Your task to perform on an android device: turn on notifications settings in the gmail app Image 0: 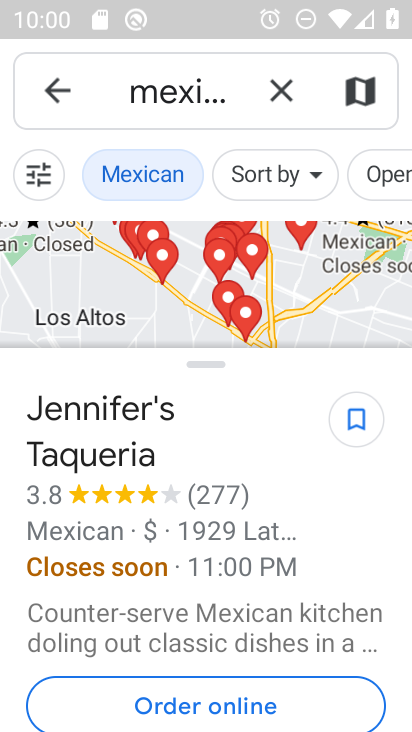
Step 0: press home button
Your task to perform on an android device: turn on notifications settings in the gmail app Image 1: 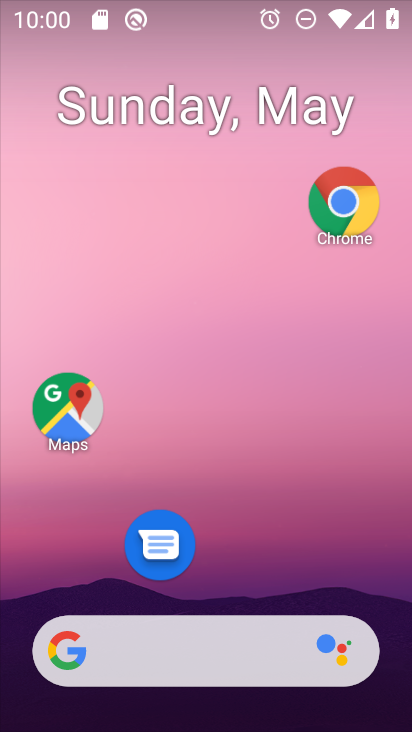
Step 1: drag from (251, 589) to (293, 39)
Your task to perform on an android device: turn on notifications settings in the gmail app Image 2: 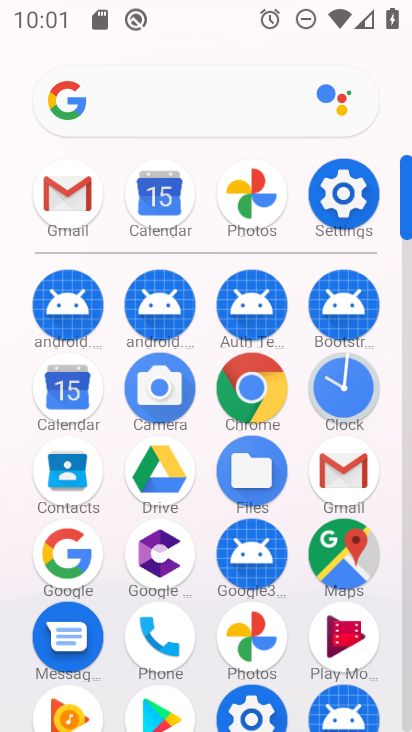
Step 2: click (335, 456)
Your task to perform on an android device: turn on notifications settings in the gmail app Image 3: 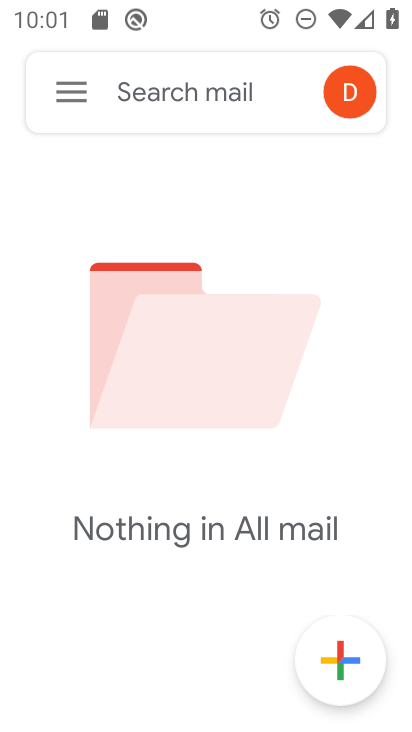
Step 3: click (56, 87)
Your task to perform on an android device: turn on notifications settings in the gmail app Image 4: 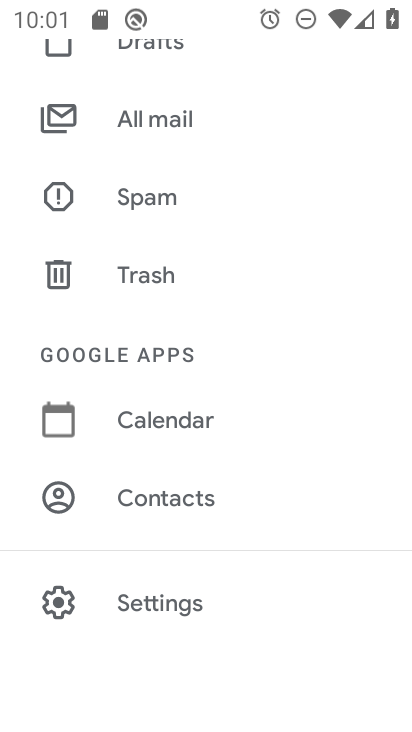
Step 4: click (116, 597)
Your task to perform on an android device: turn on notifications settings in the gmail app Image 5: 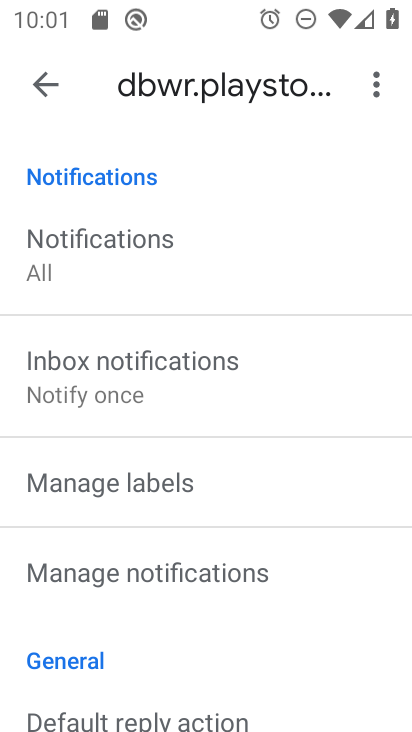
Step 5: click (110, 565)
Your task to perform on an android device: turn on notifications settings in the gmail app Image 6: 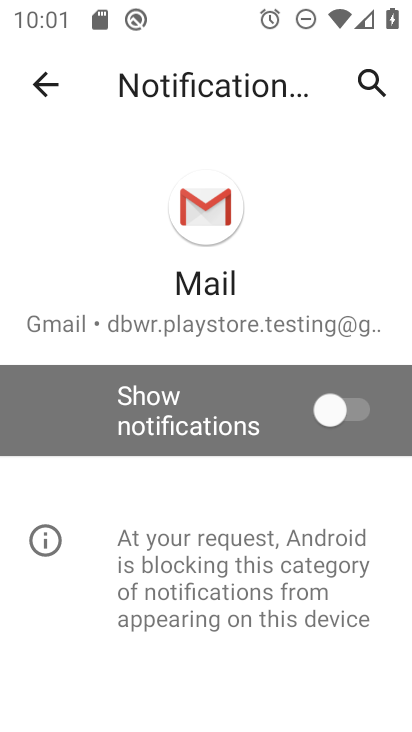
Step 6: click (339, 401)
Your task to perform on an android device: turn on notifications settings in the gmail app Image 7: 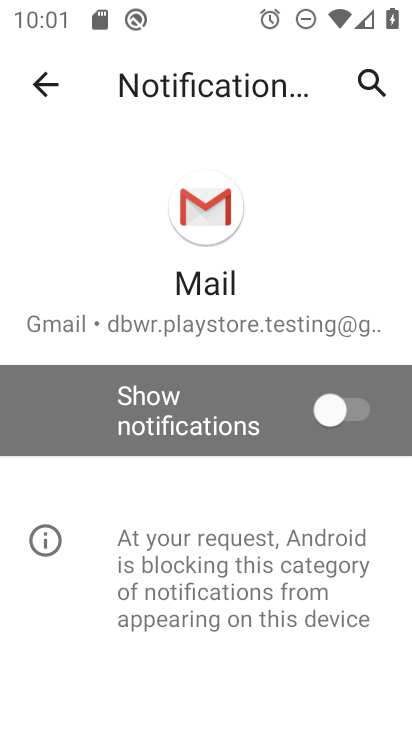
Step 7: click (339, 401)
Your task to perform on an android device: turn on notifications settings in the gmail app Image 8: 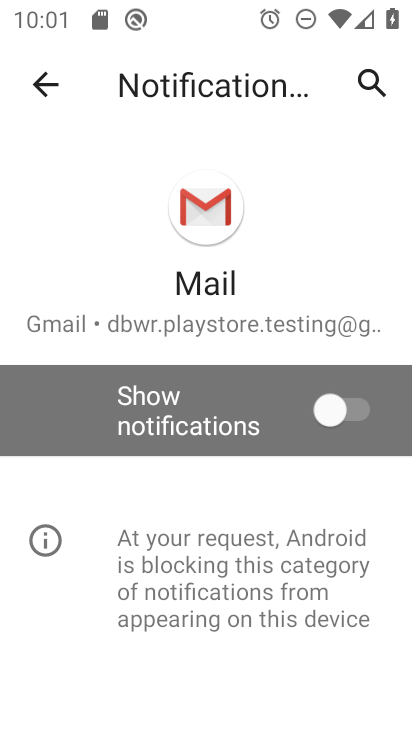
Step 8: click (339, 401)
Your task to perform on an android device: turn on notifications settings in the gmail app Image 9: 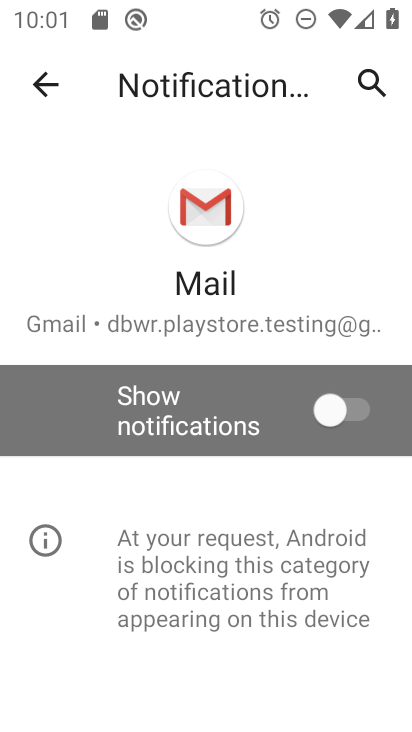
Step 9: click (339, 401)
Your task to perform on an android device: turn on notifications settings in the gmail app Image 10: 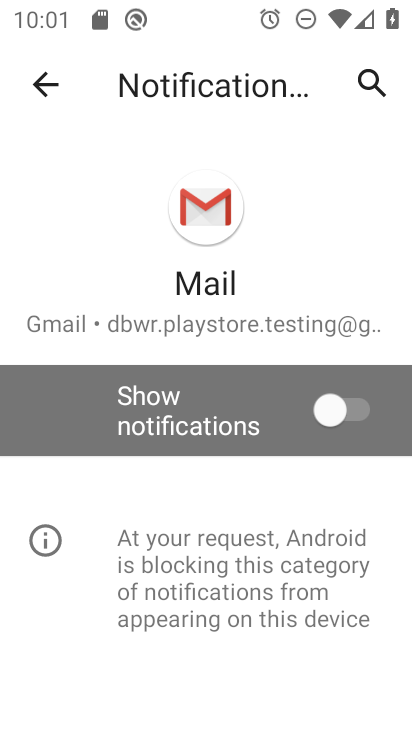
Step 10: click (339, 401)
Your task to perform on an android device: turn on notifications settings in the gmail app Image 11: 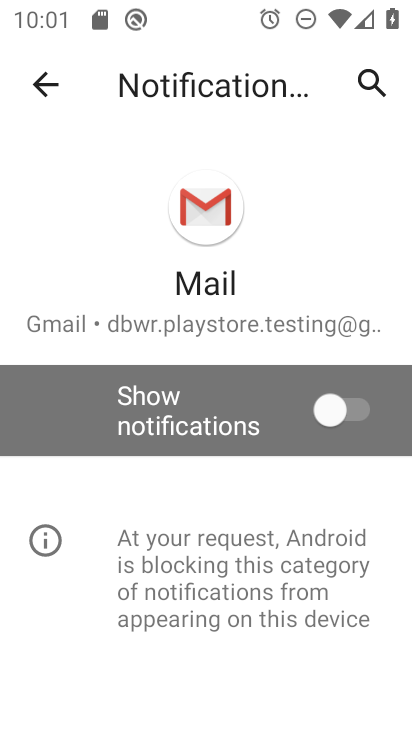
Step 11: click (339, 401)
Your task to perform on an android device: turn on notifications settings in the gmail app Image 12: 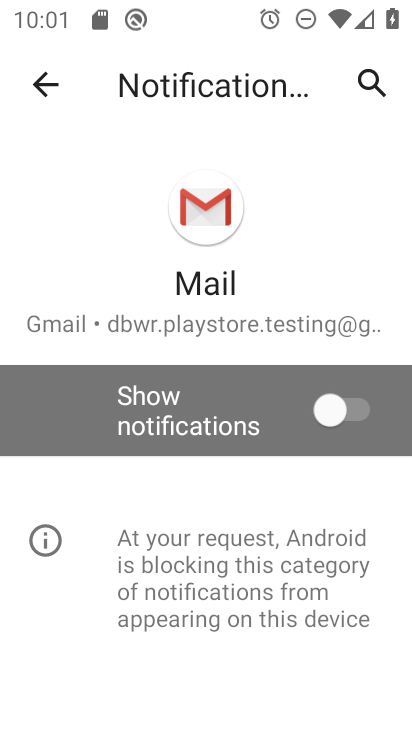
Step 12: task complete